Your task to perform on an android device: Open Google Image 0: 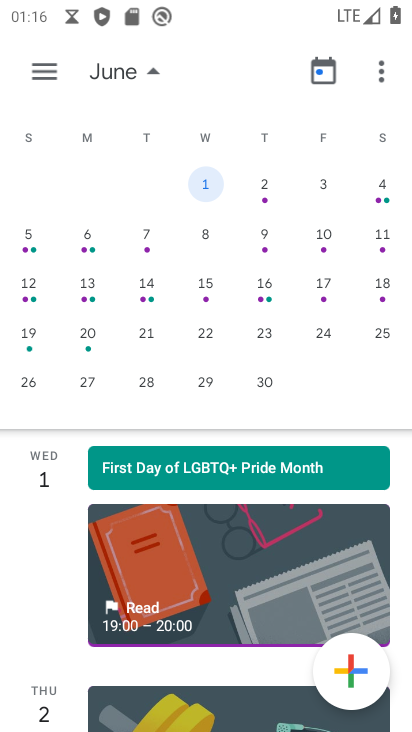
Step 0: press home button
Your task to perform on an android device: Open Google Image 1: 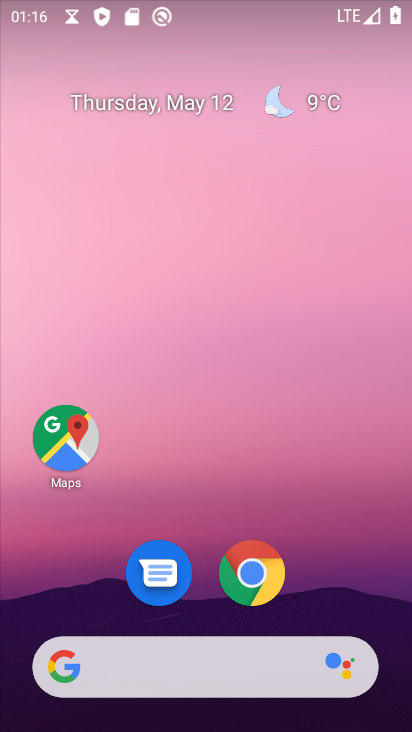
Step 1: drag from (362, 548) to (348, 264)
Your task to perform on an android device: Open Google Image 2: 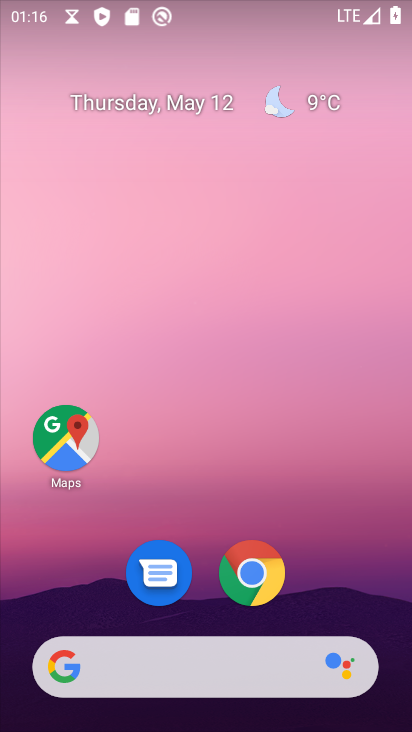
Step 2: drag from (326, 467) to (315, 61)
Your task to perform on an android device: Open Google Image 3: 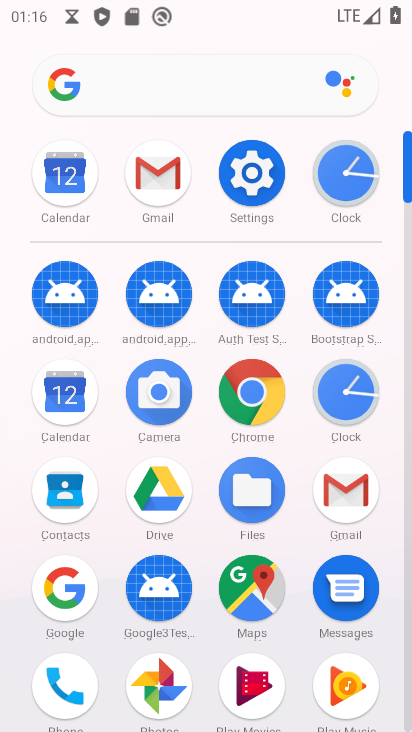
Step 3: click (70, 580)
Your task to perform on an android device: Open Google Image 4: 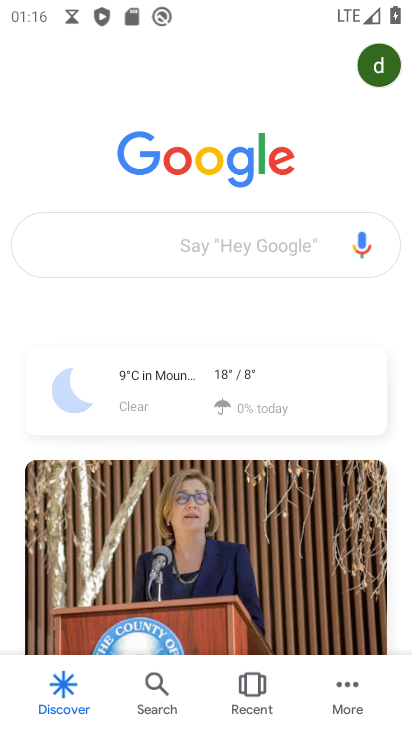
Step 4: task complete